Your task to perform on an android device: Open the stopwatch Image 0: 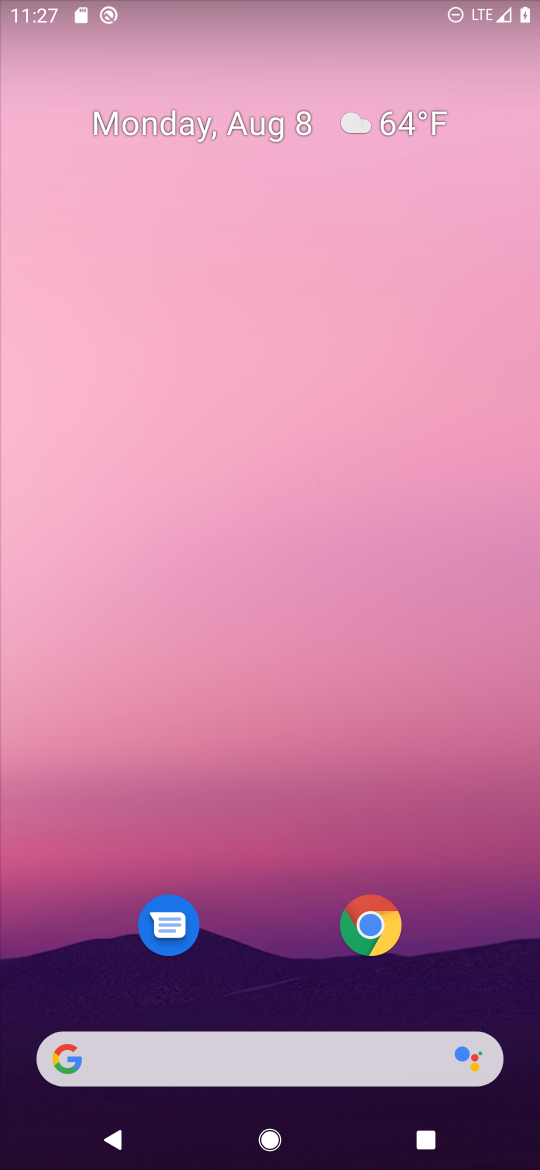
Step 0: drag from (273, 907) to (323, 149)
Your task to perform on an android device: Open the stopwatch Image 1: 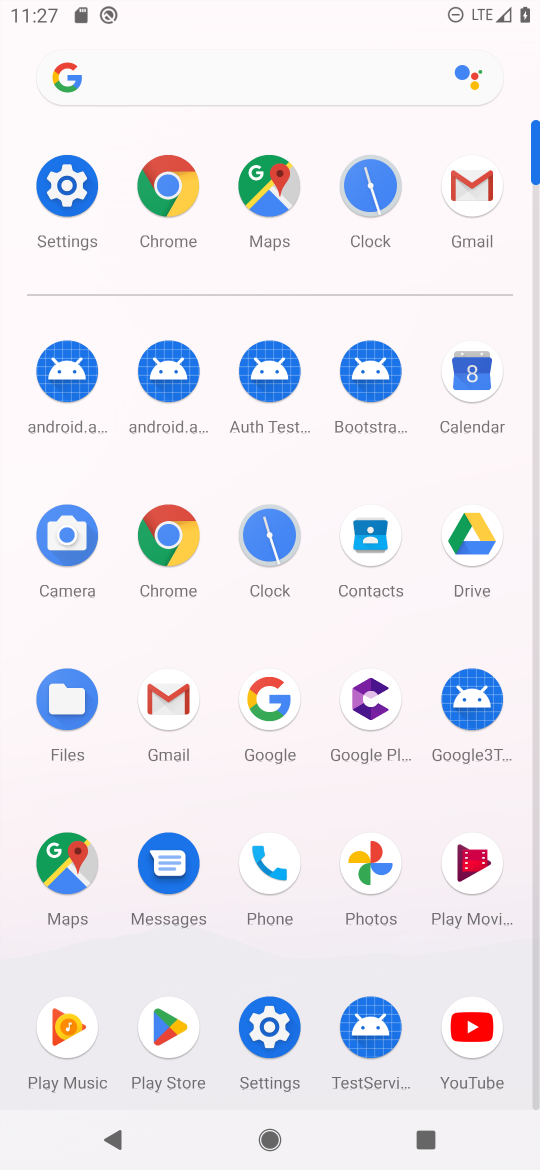
Step 1: click (252, 525)
Your task to perform on an android device: Open the stopwatch Image 2: 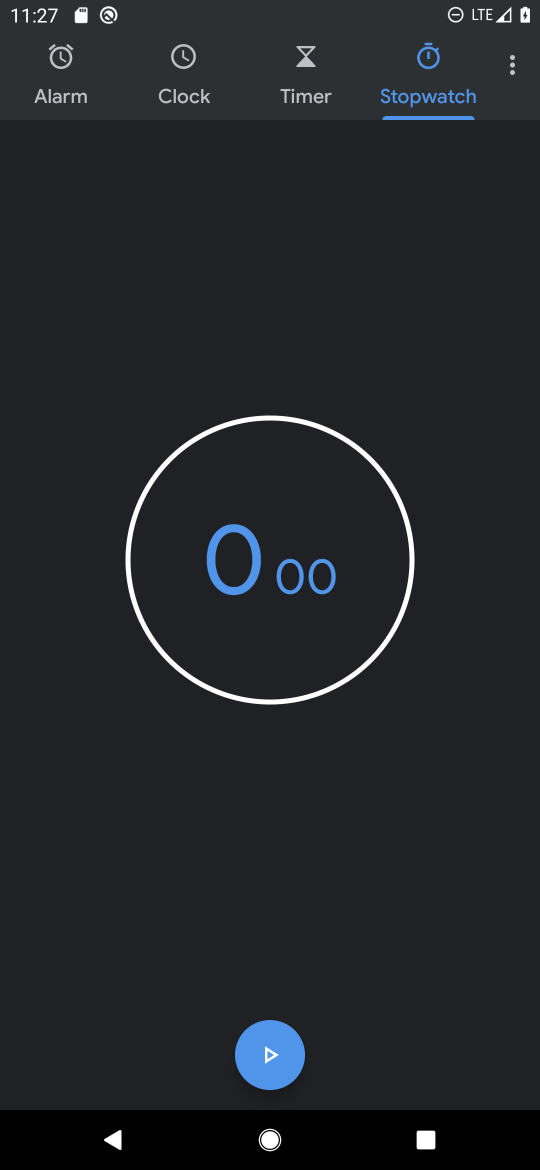
Step 2: task complete